Your task to perform on an android device: snooze an email in the gmail app Image 0: 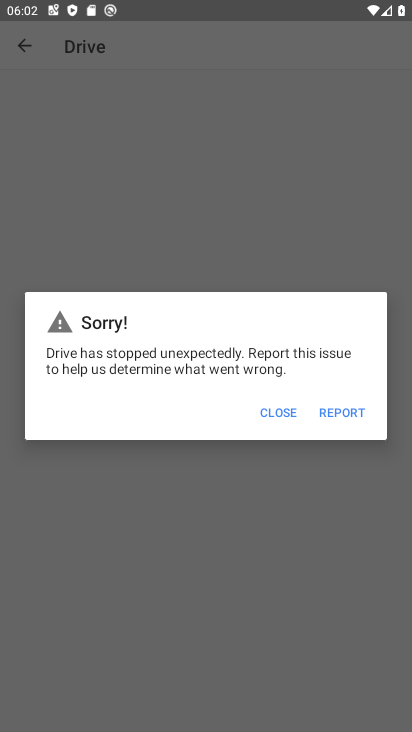
Step 0: press home button
Your task to perform on an android device: snooze an email in the gmail app Image 1: 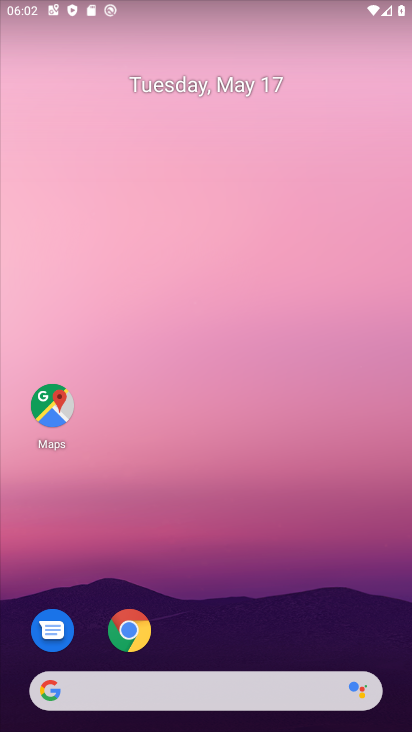
Step 1: drag from (253, 541) to (267, 77)
Your task to perform on an android device: snooze an email in the gmail app Image 2: 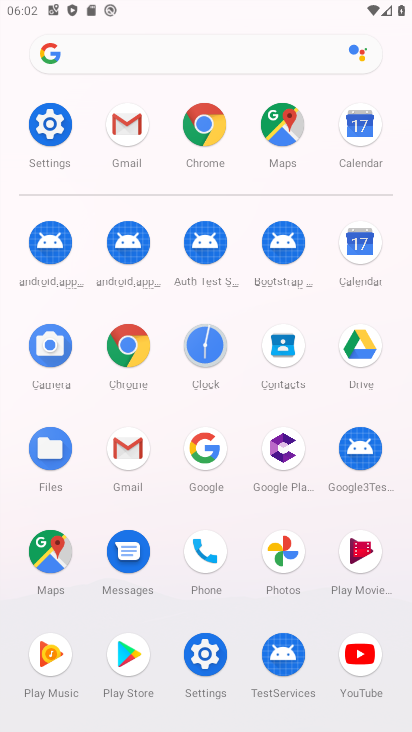
Step 2: click (213, 343)
Your task to perform on an android device: snooze an email in the gmail app Image 3: 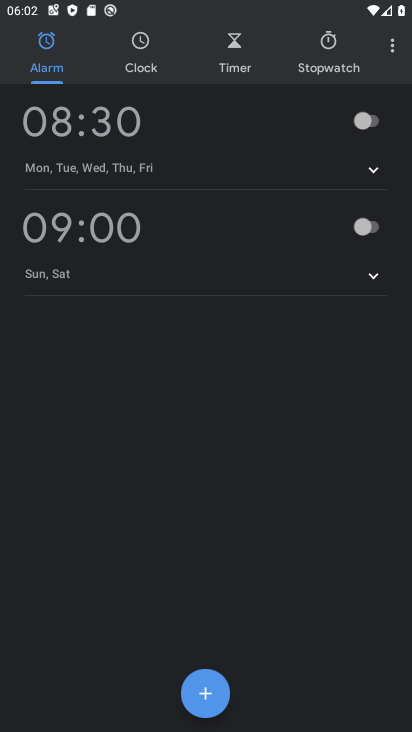
Step 3: press home button
Your task to perform on an android device: snooze an email in the gmail app Image 4: 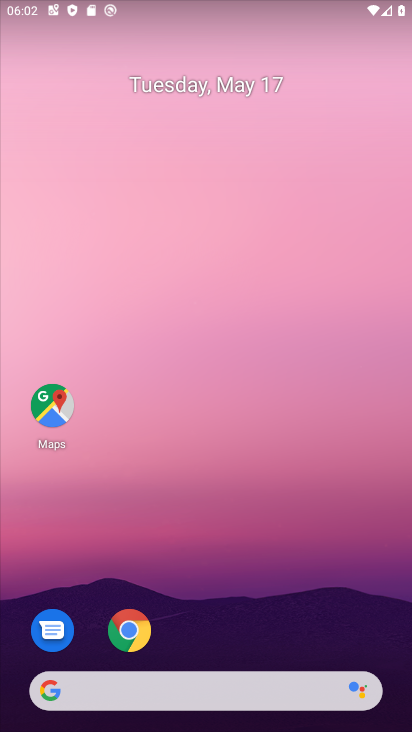
Step 4: drag from (246, 629) to (324, 105)
Your task to perform on an android device: snooze an email in the gmail app Image 5: 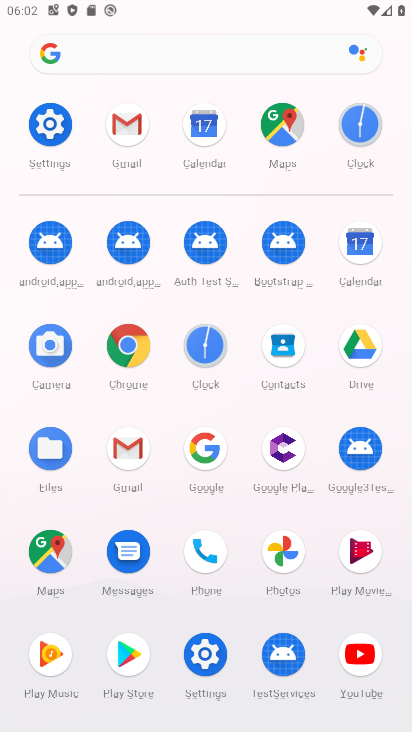
Step 5: click (138, 131)
Your task to perform on an android device: snooze an email in the gmail app Image 6: 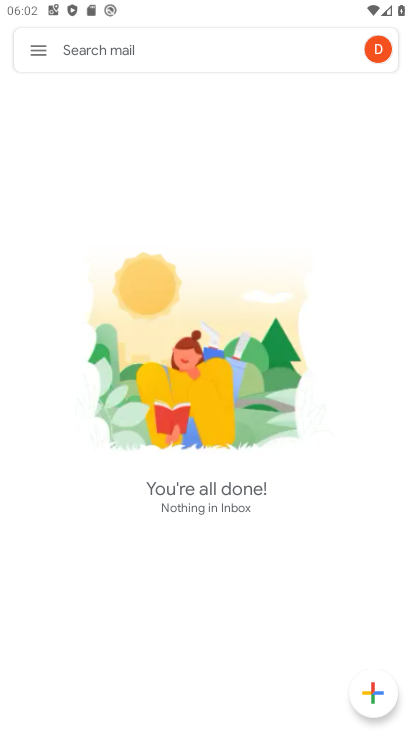
Step 6: task complete